Your task to perform on an android device: turn off translation in the chrome app Image 0: 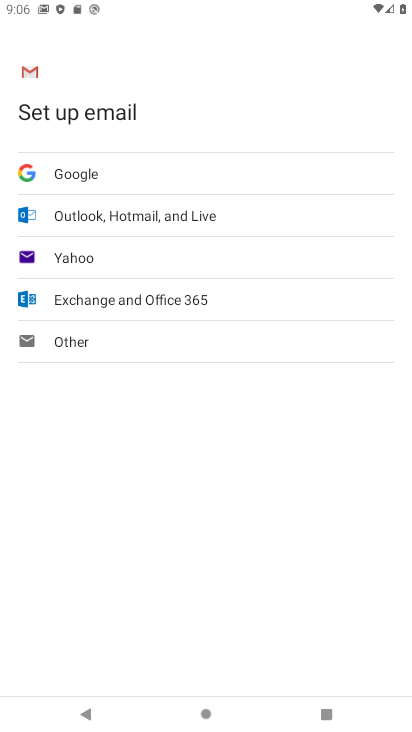
Step 0: press home button
Your task to perform on an android device: turn off translation in the chrome app Image 1: 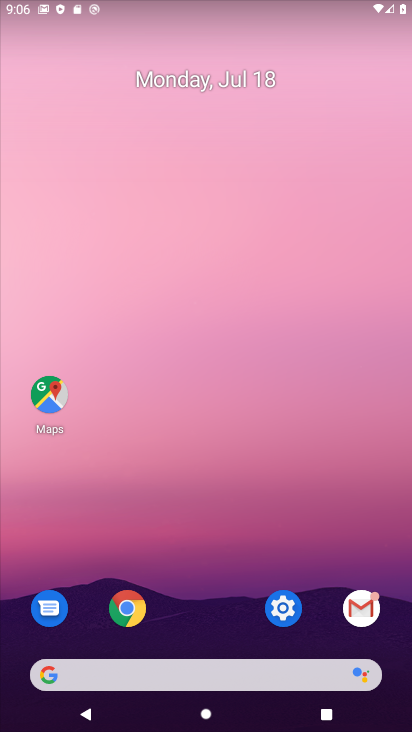
Step 1: click (127, 597)
Your task to perform on an android device: turn off translation in the chrome app Image 2: 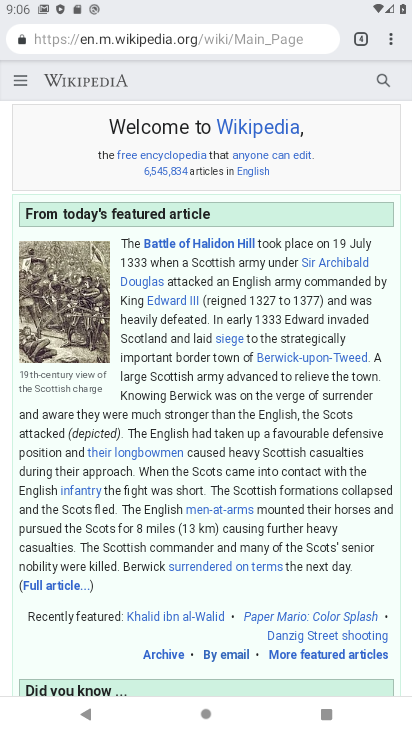
Step 2: click (388, 44)
Your task to perform on an android device: turn off translation in the chrome app Image 3: 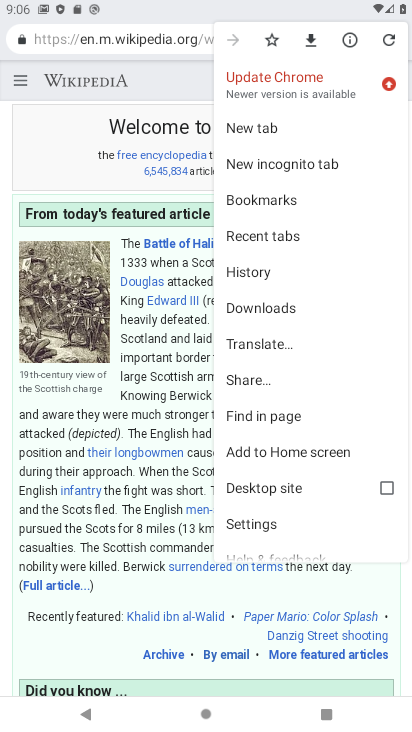
Step 3: click (251, 530)
Your task to perform on an android device: turn off translation in the chrome app Image 4: 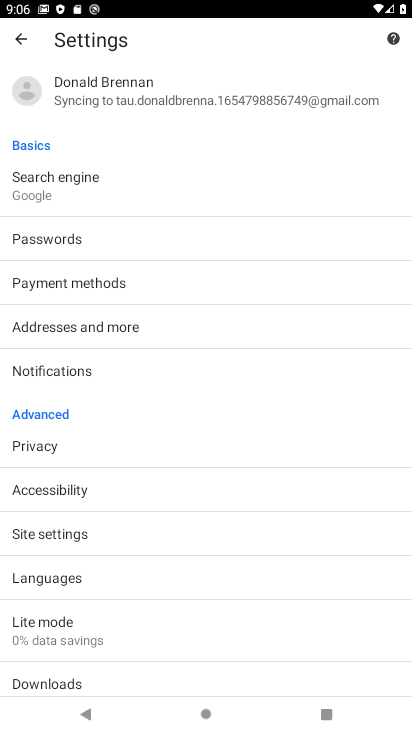
Step 4: click (76, 530)
Your task to perform on an android device: turn off translation in the chrome app Image 5: 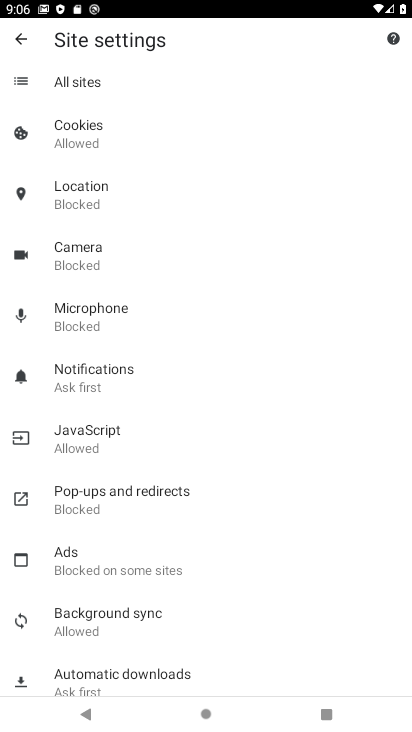
Step 5: click (16, 44)
Your task to perform on an android device: turn off translation in the chrome app Image 6: 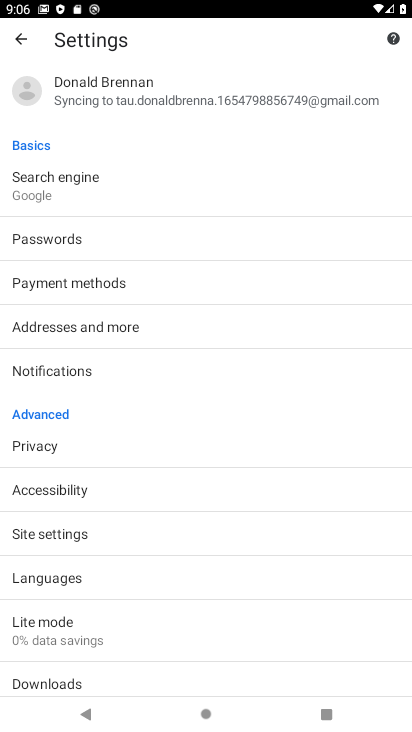
Step 6: click (70, 576)
Your task to perform on an android device: turn off translation in the chrome app Image 7: 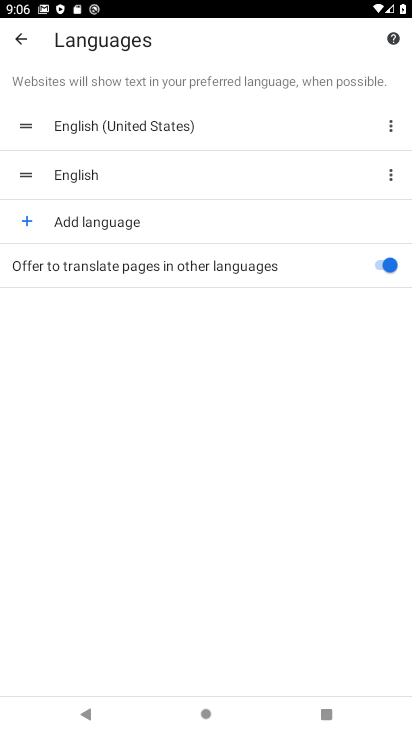
Step 7: click (364, 258)
Your task to perform on an android device: turn off translation in the chrome app Image 8: 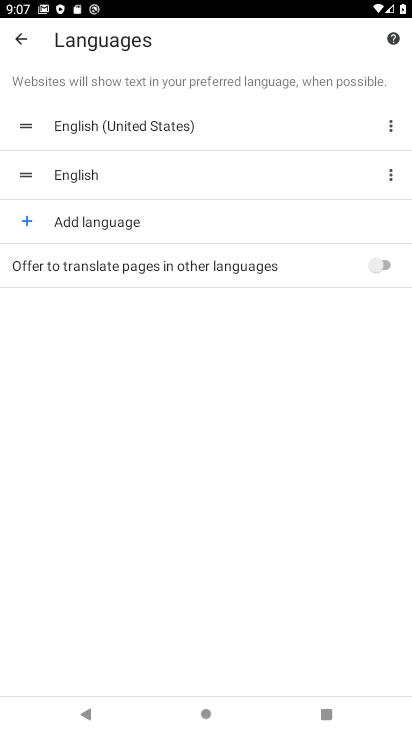
Step 8: task complete